Your task to perform on an android device: Search for seafood restaurants on Google Maps Image 0: 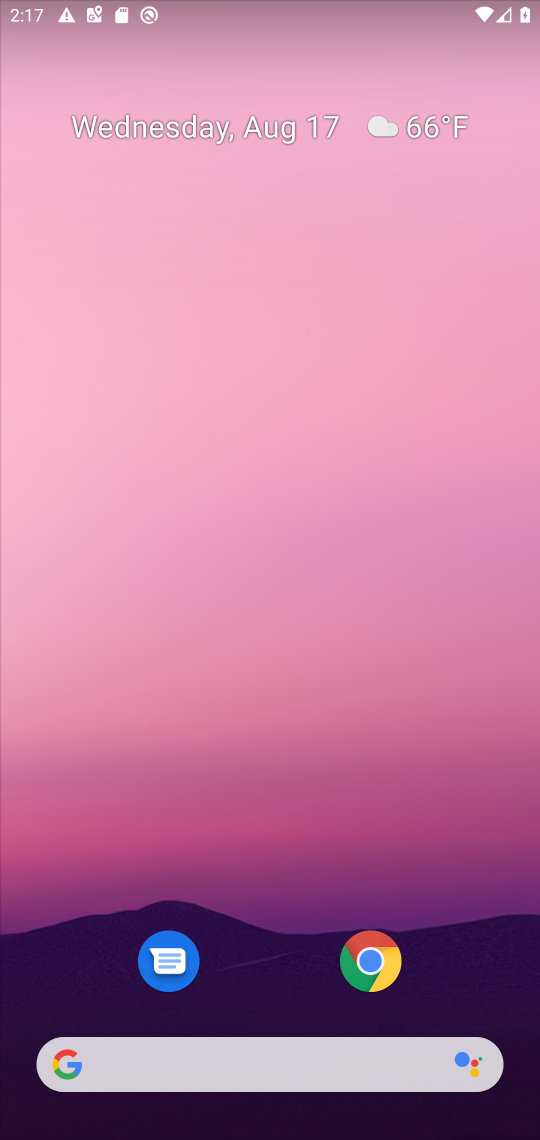
Step 0: drag from (331, 927) to (424, 0)
Your task to perform on an android device: Search for seafood restaurants on Google Maps Image 1: 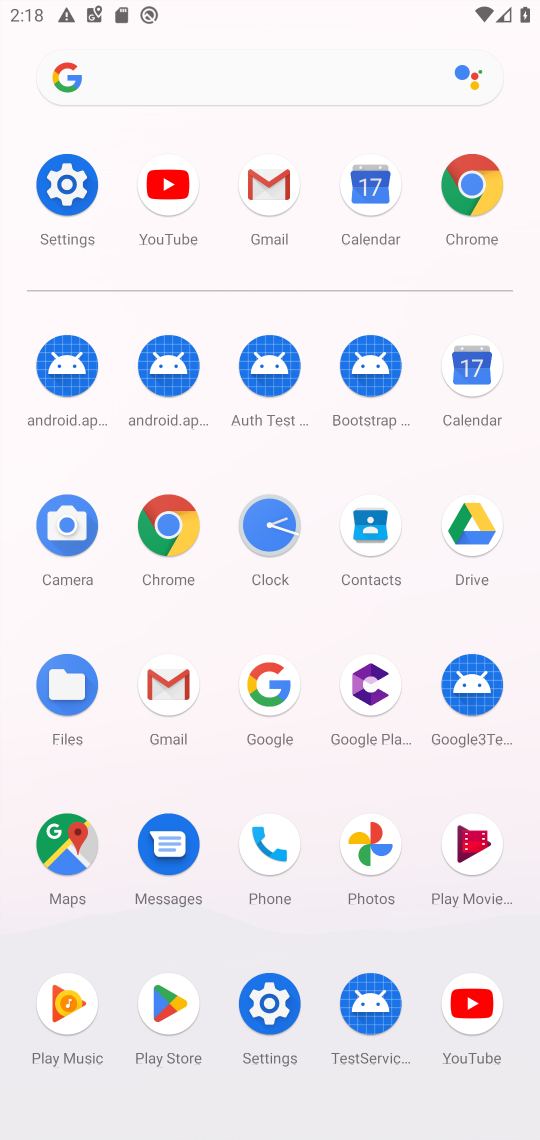
Step 1: click (64, 846)
Your task to perform on an android device: Search for seafood restaurants on Google Maps Image 2: 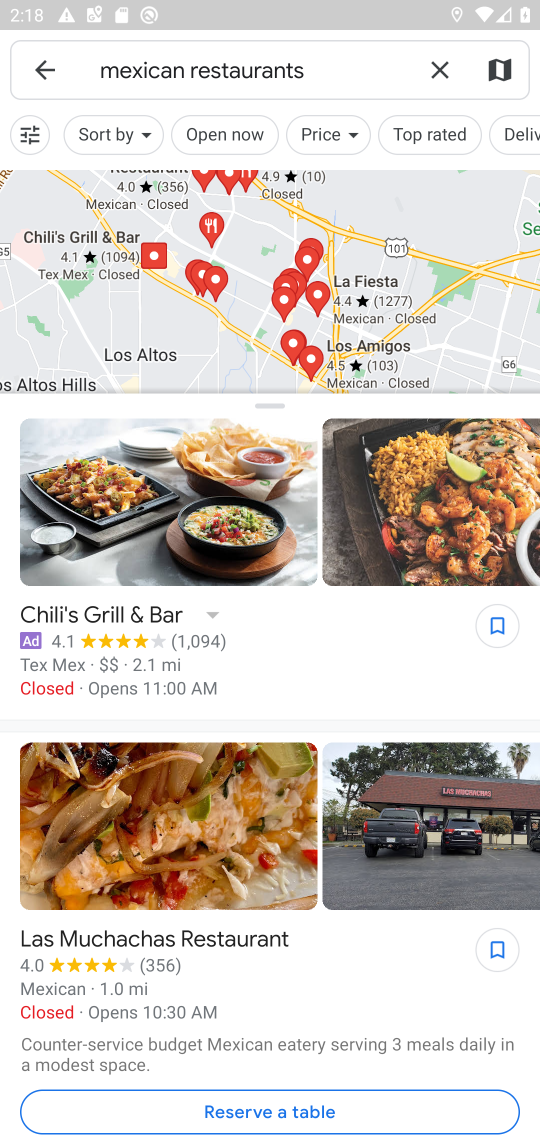
Step 2: click (435, 71)
Your task to perform on an android device: Search for seafood restaurants on Google Maps Image 3: 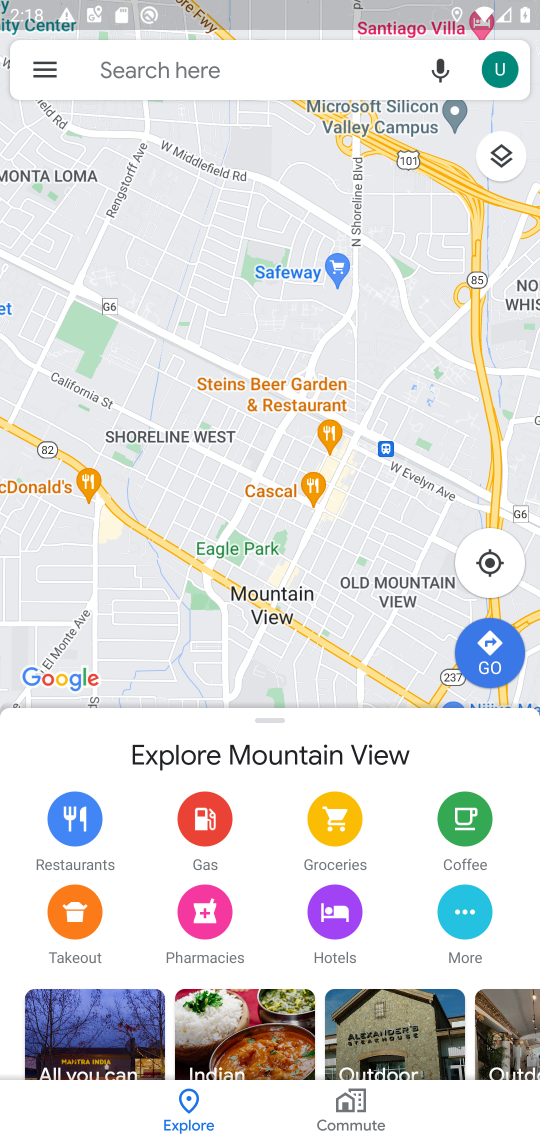
Step 3: click (232, 84)
Your task to perform on an android device: Search for seafood restaurants on Google Maps Image 4: 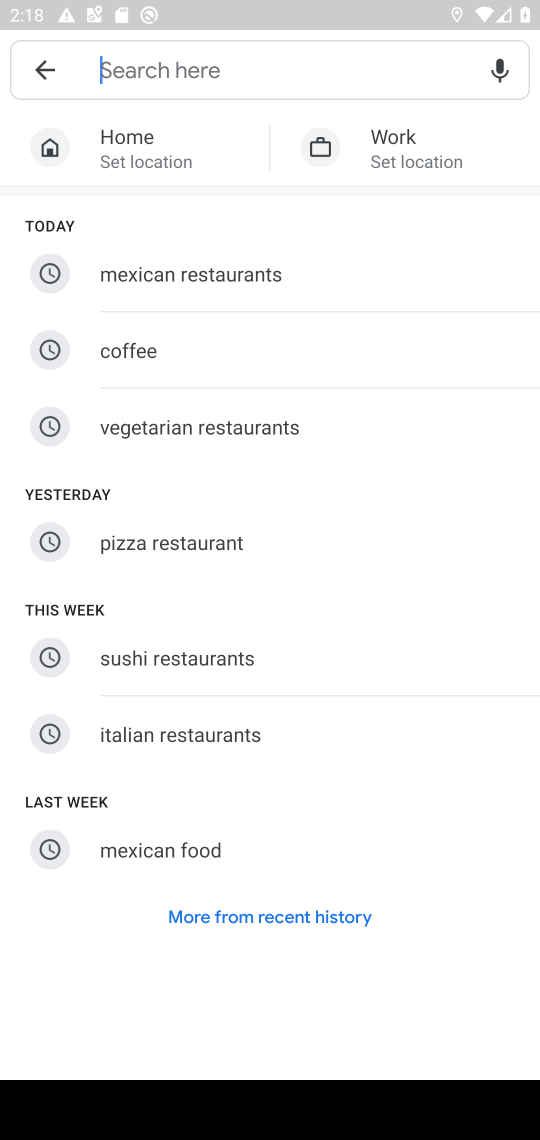
Step 4: type "seafood"
Your task to perform on an android device: Search for seafood restaurants on Google Maps Image 5: 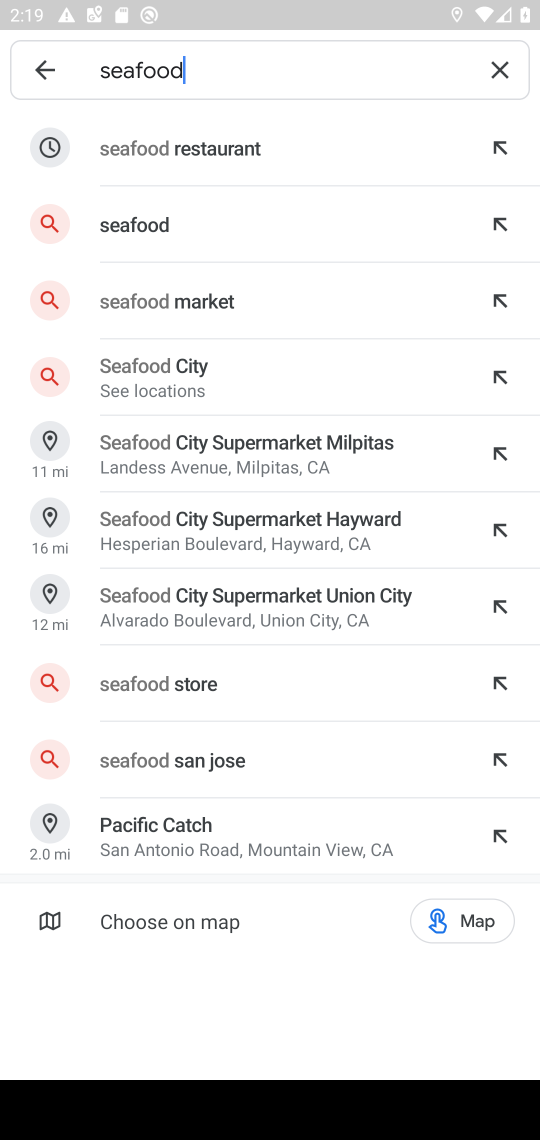
Step 5: click (204, 145)
Your task to perform on an android device: Search for seafood restaurants on Google Maps Image 6: 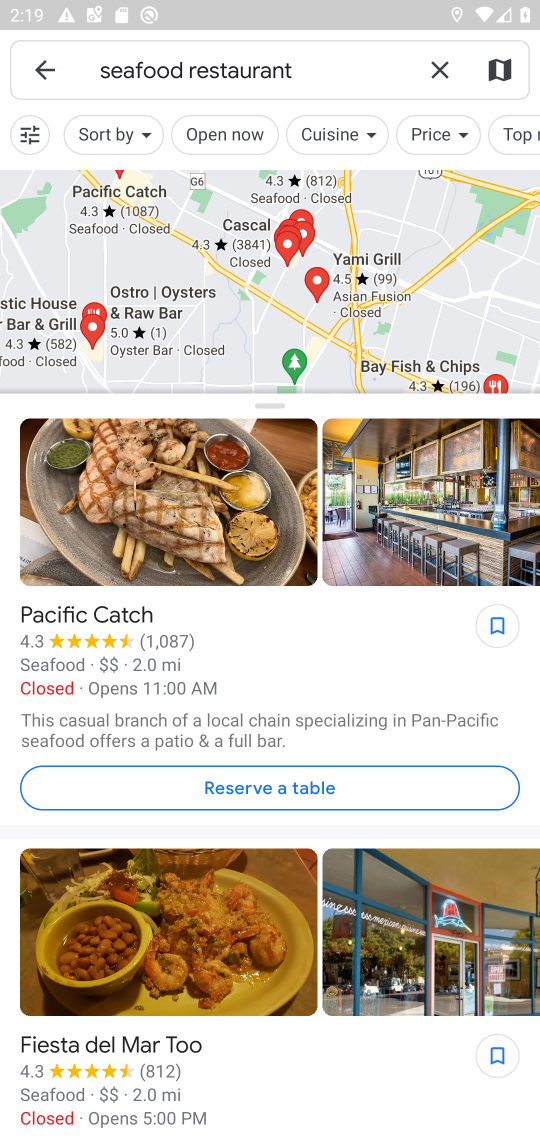
Step 6: task complete